Your task to perform on an android device: star an email in the gmail app Image 0: 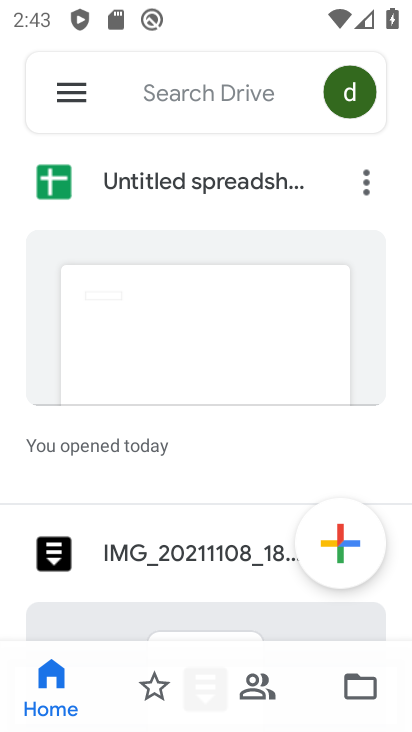
Step 0: press home button
Your task to perform on an android device: star an email in the gmail app Image 1: 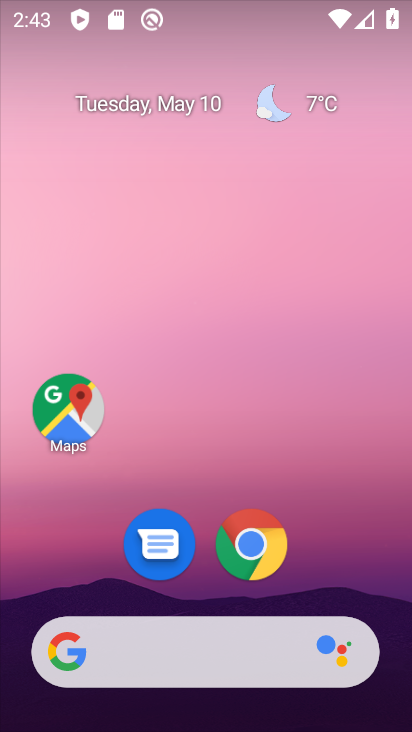
Step 1: drag from (365, 554) to (364, 178)
Your task to perform on an android device: star an email in the gmail app Image 2: 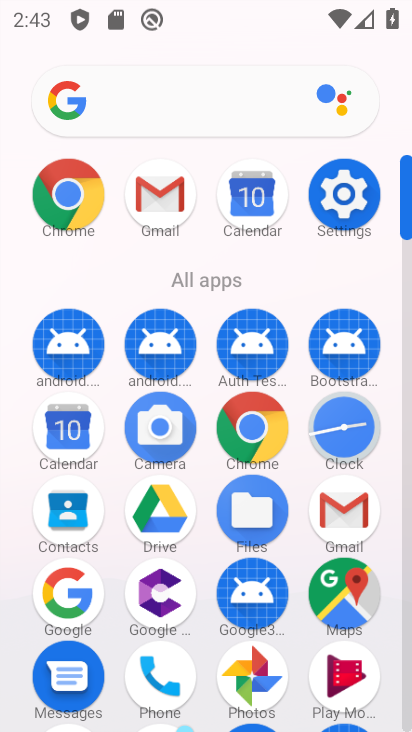
Step 2: click (347, 499)
Your task to perform on an android device: star an email in the gmail app Image 3: 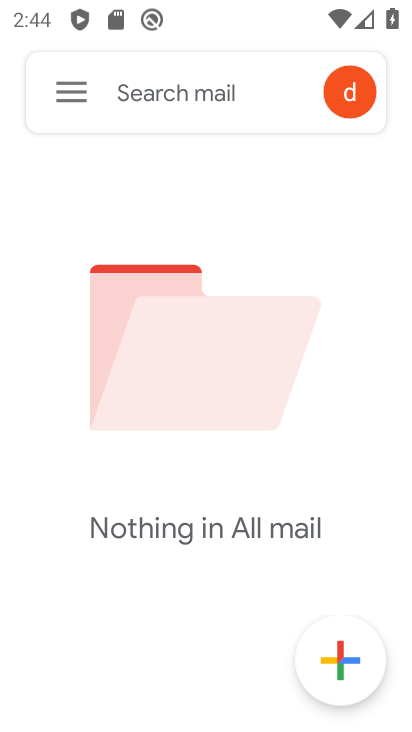
Step 3: click (65, 93)
Your task to perform on an android device: star an email in the gmail app Image 4: 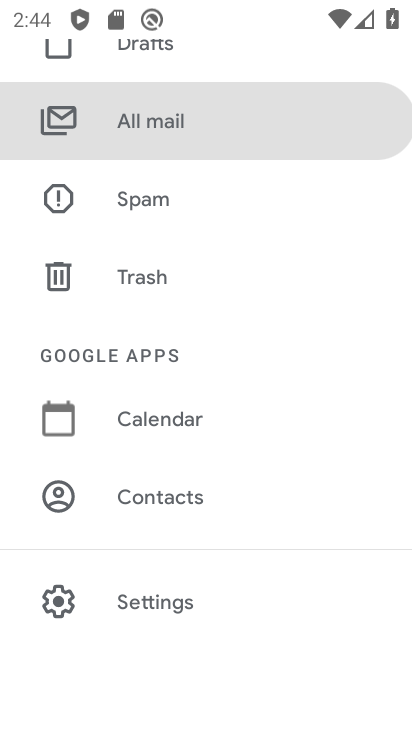
Step 4: drag from (206, 134) to (202, 633)
Your task to perform on an android device: star an email in the gmail app Image 5: 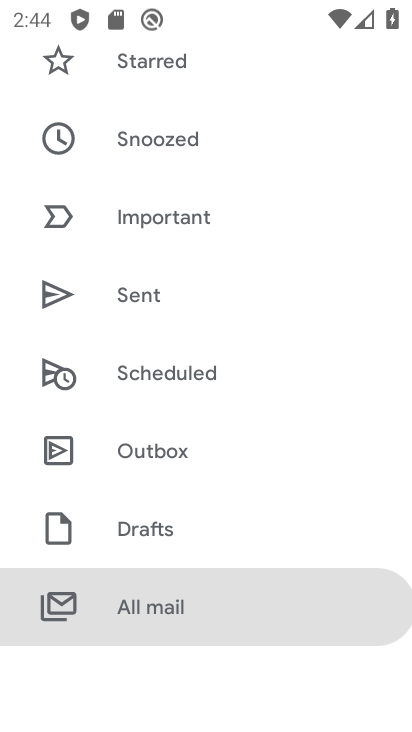
Step 5: drag from (222, 180) to (203, 586)
Your task to perform on an android device: star an email in the gmail app Image 6: 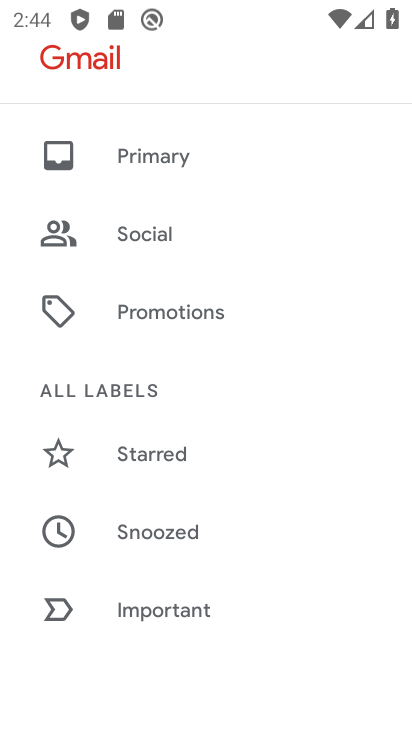
Step 6: click (172, 460)
Your task to perform on an android device: star an email in the gmail app Image 7: 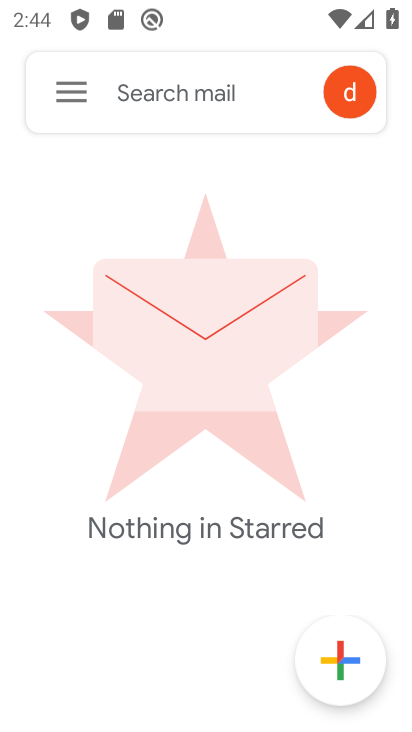
Step 7: task complete